Your task to perform on an android device: Go to internet settings Image 0: 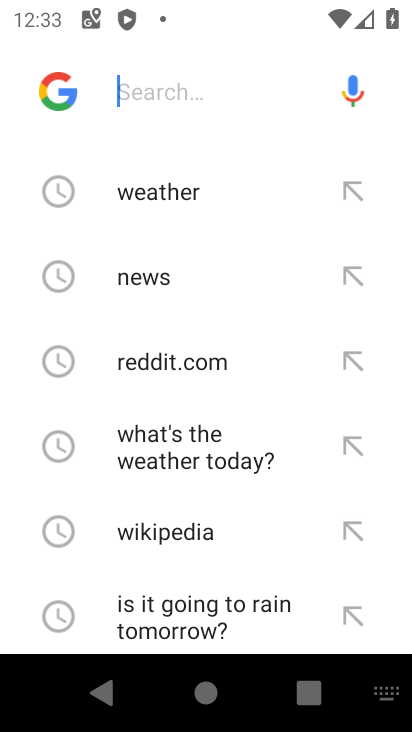
Step 0: press home button
Your task to perform on an android device: Go to internet settings Image 1: 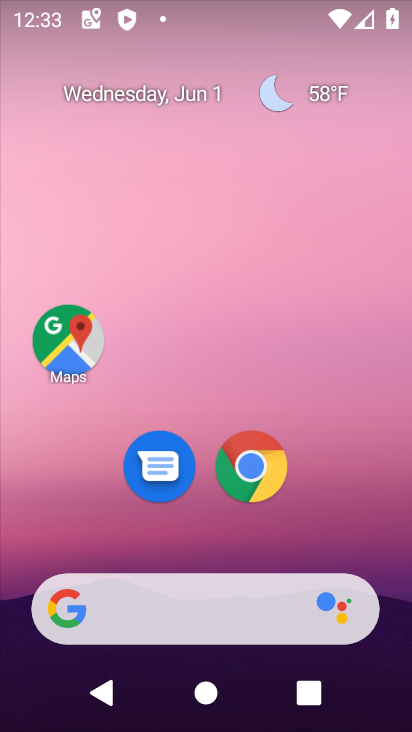
Step 1: drag from (405, 599) to (314, 201)
Your task to perform on an android device: Go to internet settings Image 2: 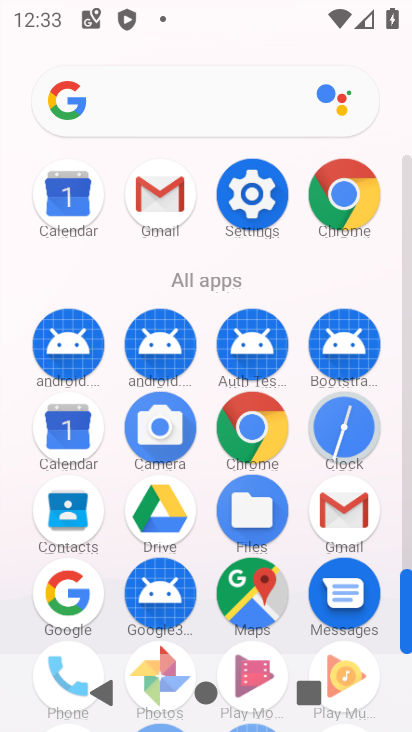
Step 2: click (264, 205)
Your task to perform on an android device: Go to internet settings Image 3: 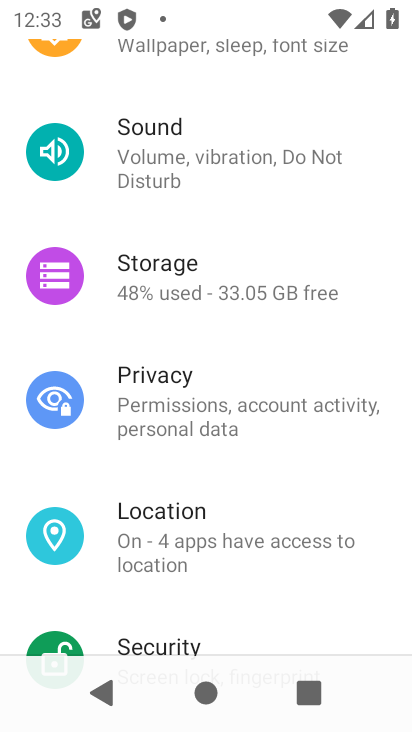
Step 3: drag from (267, 190) to (228, 470)
Your task to perform on an android device: Go to internet settings Image 4: 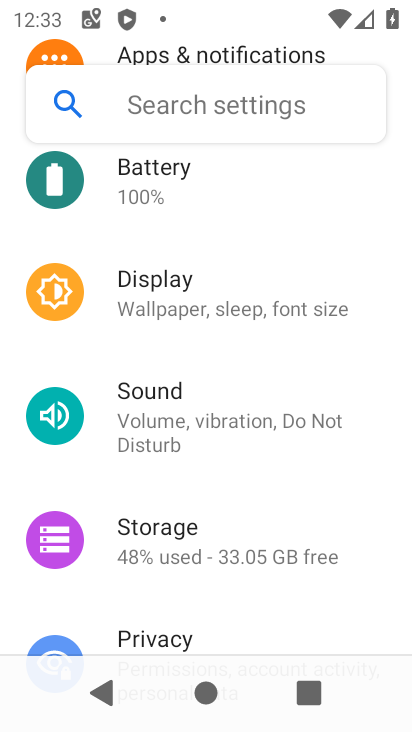
Step 4: drag from (260, 208) to (218, 529)
Your task to perform on an android device: Go to internet settings Image 5: 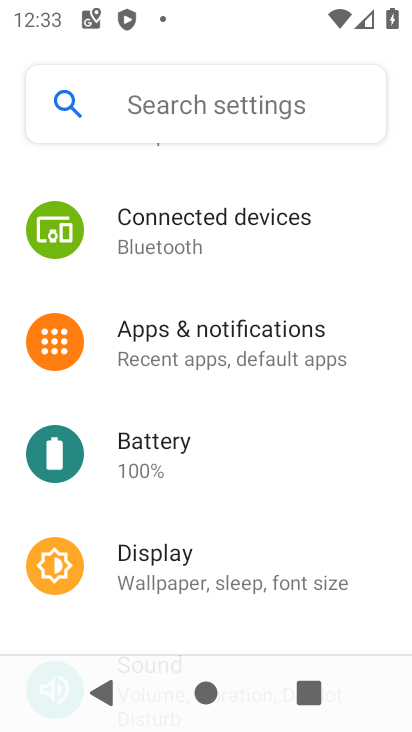
Step 5: drag from (238, 299) to (261, 710)
Your task to perform on an android device: Go to internet settings Image 6: 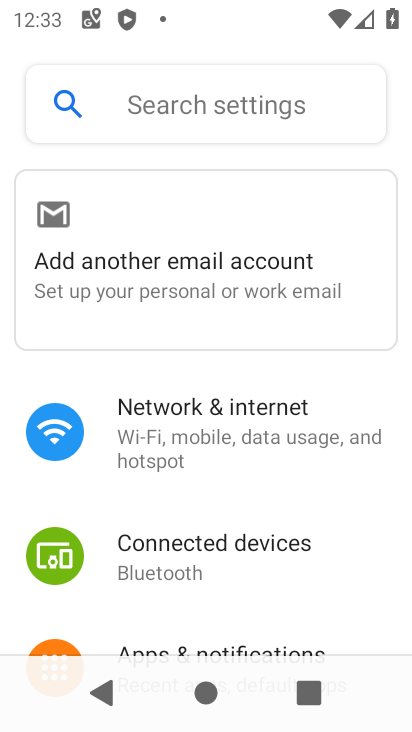
Step 6: click (222, 412)
Your task to perform on an android device: Go to internet settings Image 7: 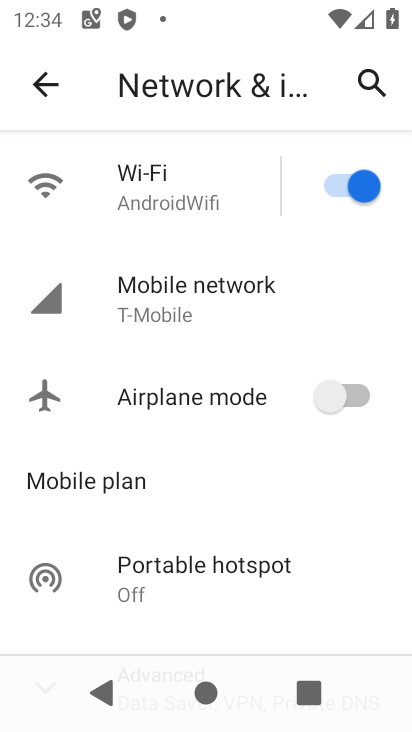
Step 7: task complete